Your task to perform on an android device: turn off wifi Image 0: 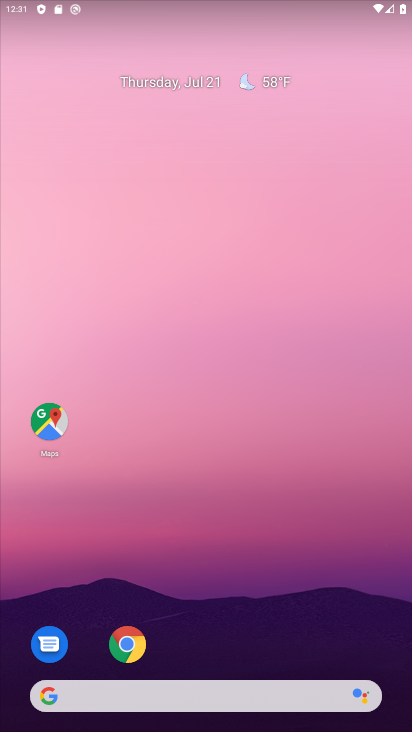
Step 0: drag from (349, 601) to (312, 87)
Your task to perform on an android device: turn off wifi Image 1: 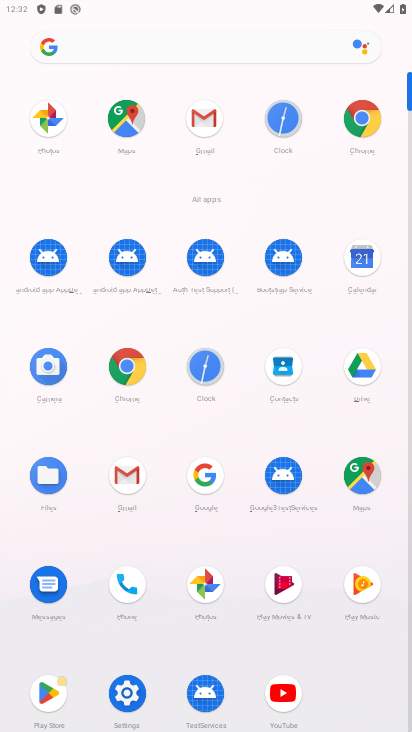
Step 1: click (135, 688)
Your task to perform on an android device: turn off wifi Image 2: 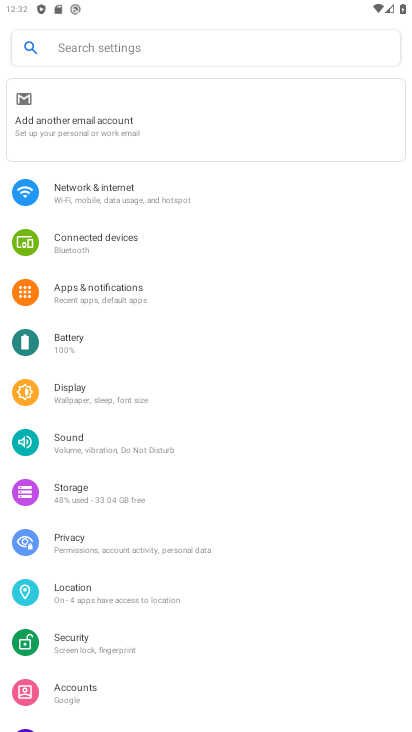
Step 2: drag from (299, 551) to (298, 395)
Your task to perform on an android device: turn off wifi Image 3: 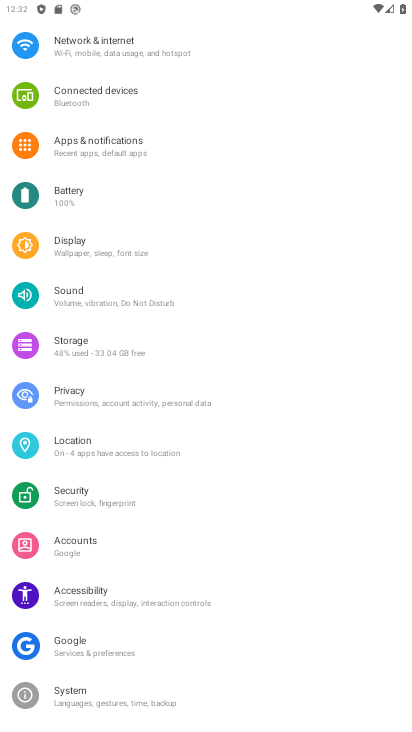
Step 3: drag from (313, 556) to (305, 422)
Your task to perform on an android device: turn off wifi Image 4: 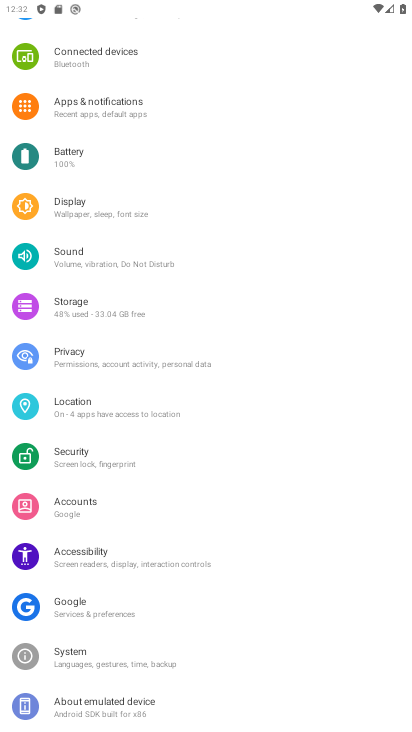
Step 4: drag from (316, 343) to (322, 451)
Your task to perform on an android device: turn off wifi Image 5: 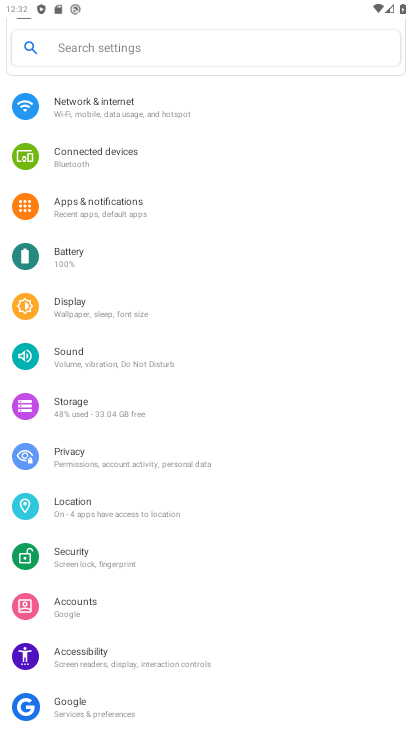
Step 5: drag from (313, 286) to (313, 434)
Your task to perform on an android device: turn off wifi Image 6: 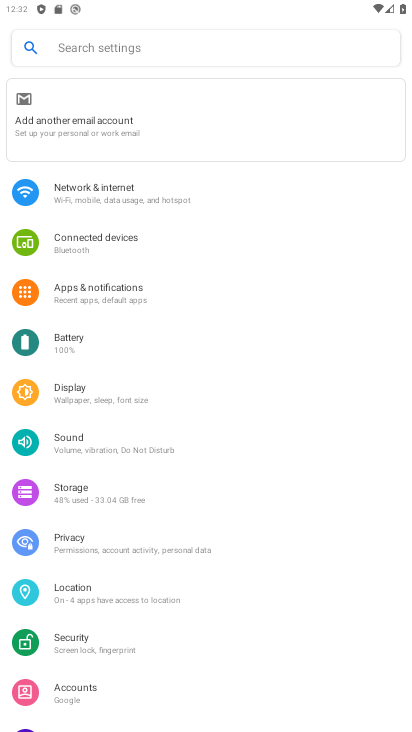
Step 6: click (179, 192)
Your task to perform on an android device: turn off wifi Image 7: 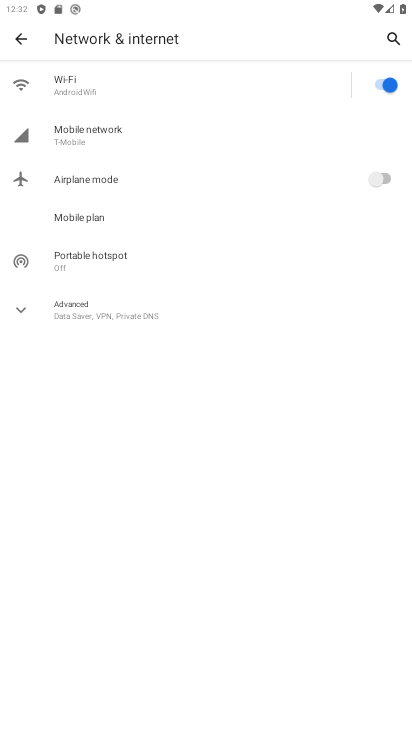
Step 7: click (385, 89)
Your task to perform on an android device: turn off wifi Image 8: 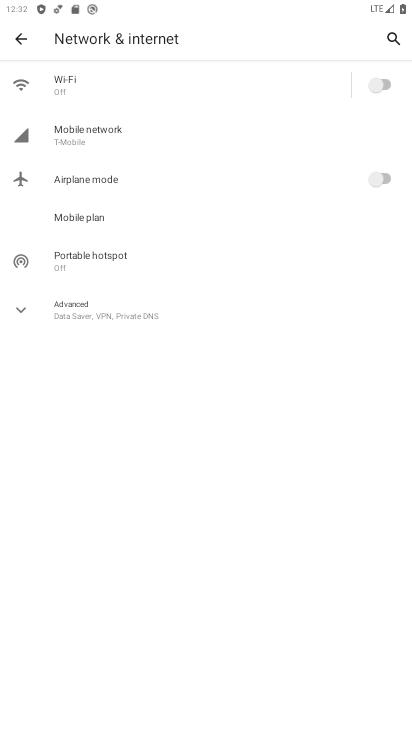
Step 8: task complete